Your task to perform on an android device: Go to Wikipedia Image 0: 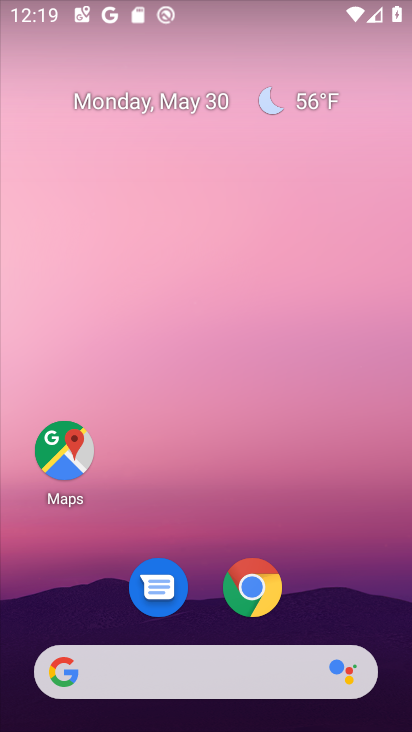
Step 0: click (265, 583)
Your task to perform on an android device: Go to Wikipedia Image 1: 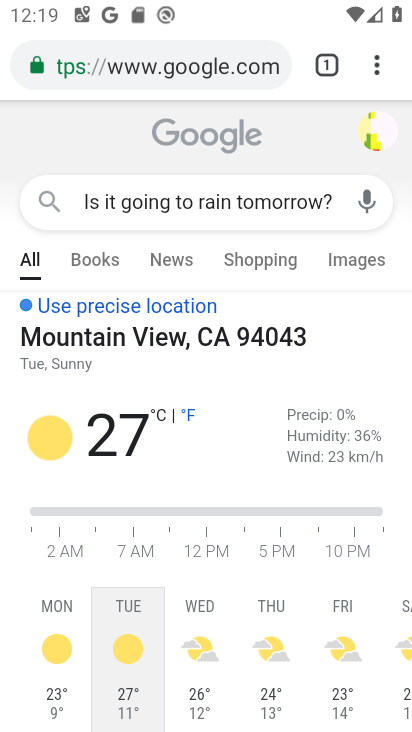
Step 1: click (335, 53)
Your task to perform on an android device: Go to Wikipedia Image 2: 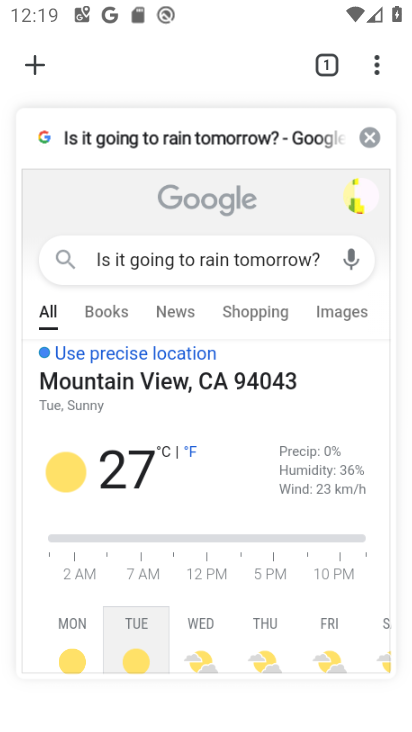
Step 2: click (38, 44)
Your task to perform on an android device: Go to Wikipedia Image 3: 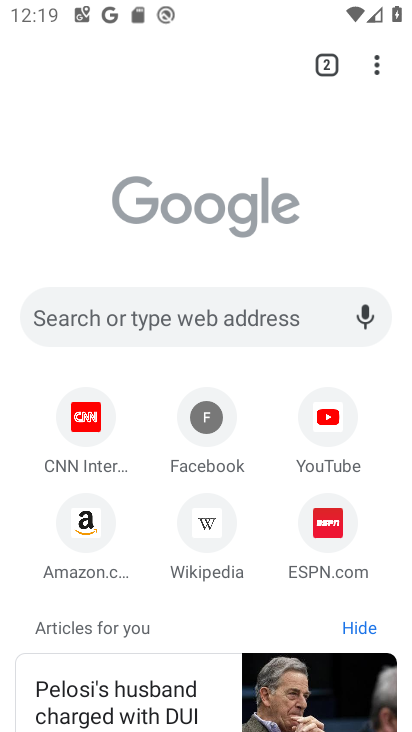
Step 3: click (197, 528)
Your task to perform on an android device: Go to Wikipedia Image 4: 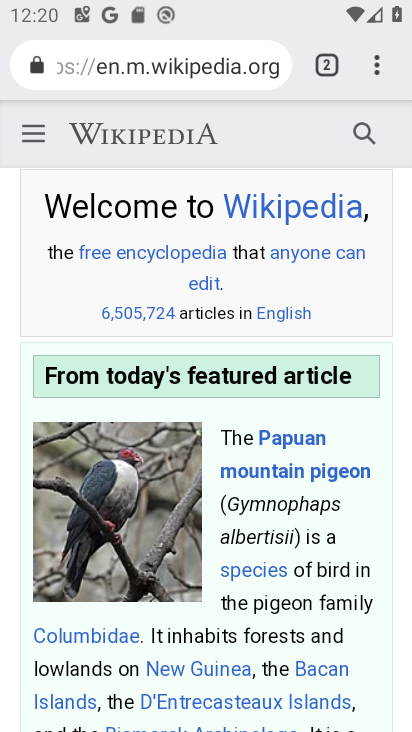
Step 4: task complete